Your task to perform on an android device: find which apps use the phone's location Image 0: 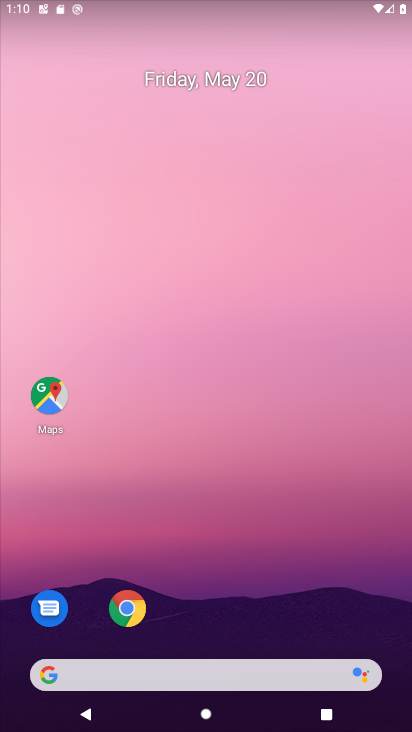
Step 0: drag from (252, 608) to (286, 370)
Your task to perform on an android device: find which apps use the phone's location Image 1: 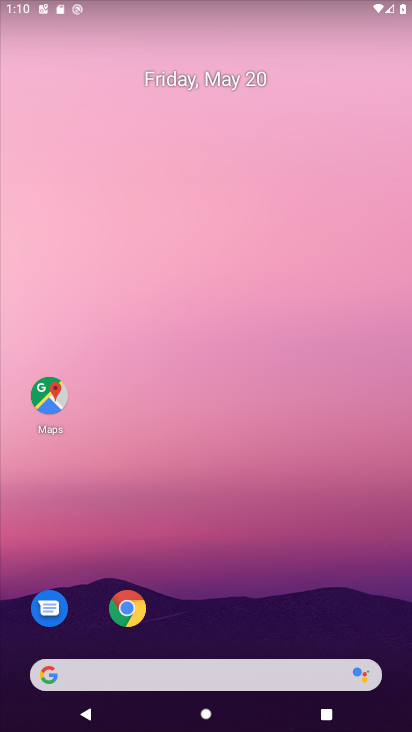
Step 1: drag from (272, 641) to (288, 293)
Your task to perform on an android device: find which apps use the phone's location Image 2: 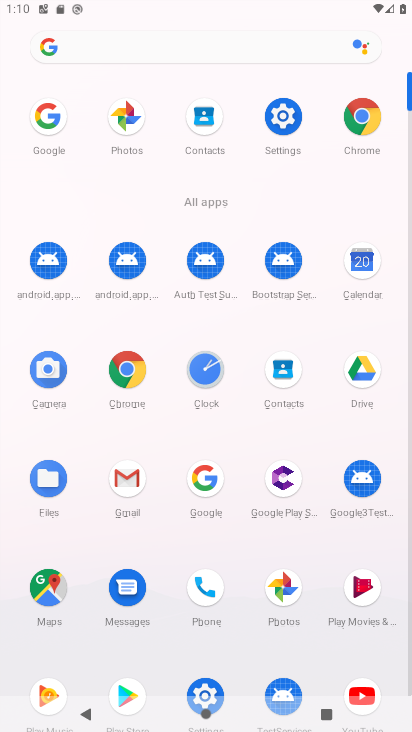
Step 2: click (272, 125)
Your task to perform on an android device: find which apps use the phone's location Image 3: 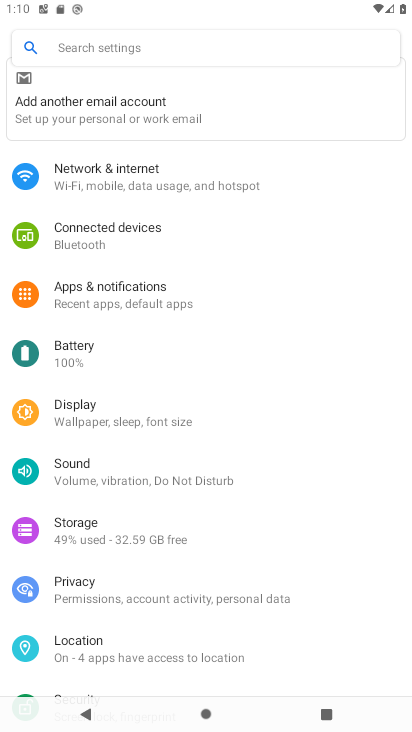
Step 3: click (124, 659)
Your task to perform on an android device: find which apps use the phone's location Image 4: 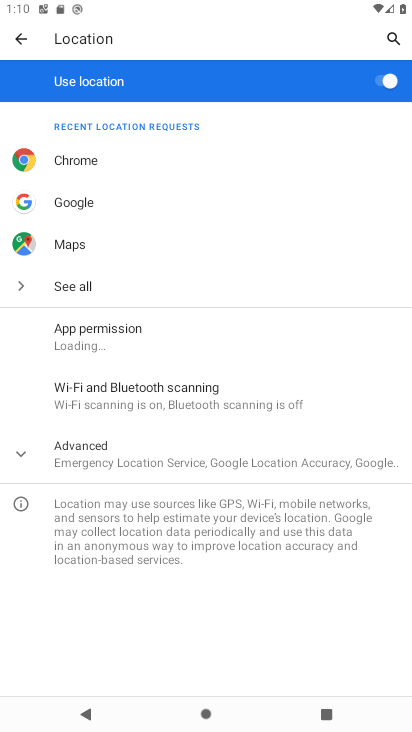
Step 4: click (117, 158)
Your task to perform on an android device: find which apps use the phone's location Image 5: 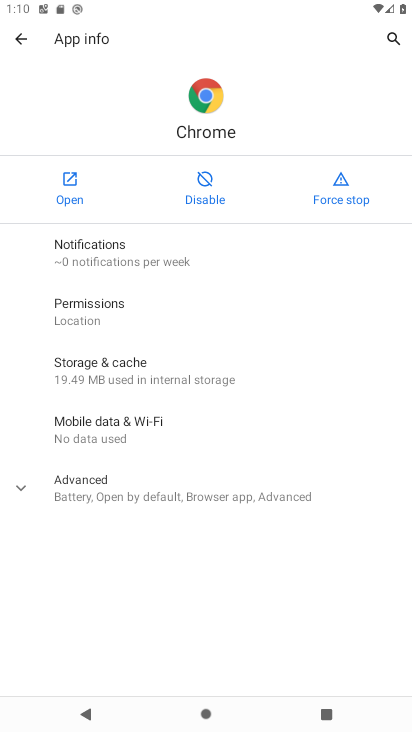
Step 5: click (110, 313)
Your task to perform on an android device: find which apps use the phone's location Image 6: 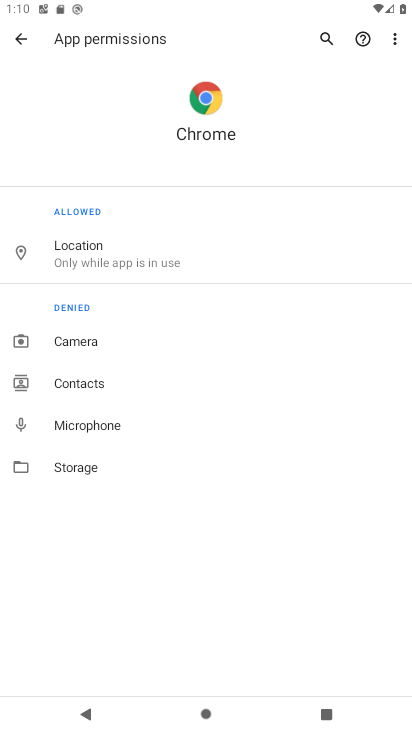
Step 6: task complete